Your task to perform on an android device: Empty the shopping cart on ebay.com. Search for "bose soundlink" on ebay.com, select the first entry, add it to the cart, then select checkout. Image 0: 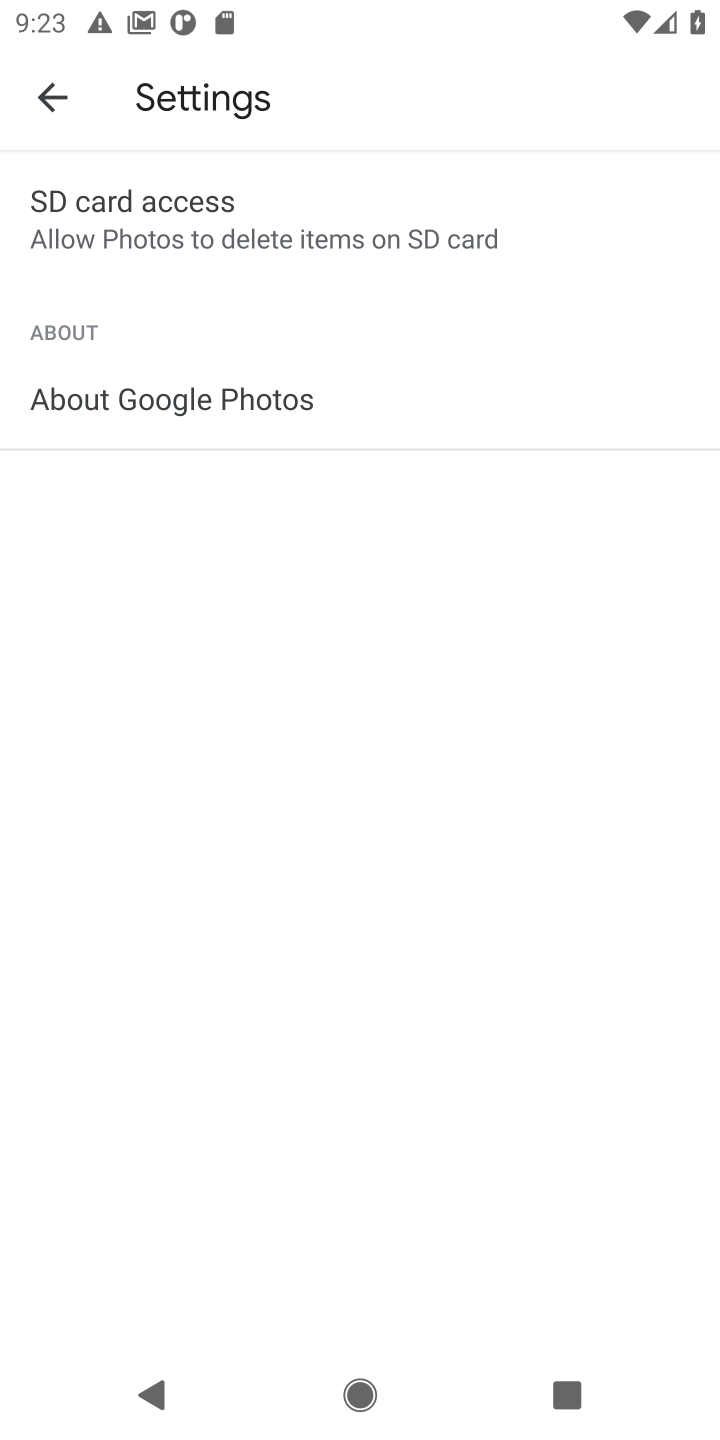
Step 0: press home button
Your task to perform on an android device: Empty the shopping cart on ebay.com. Search for "bose soundlink" on ebay.com, select the first entry, add it to the cart, then select checkout. Image 1: 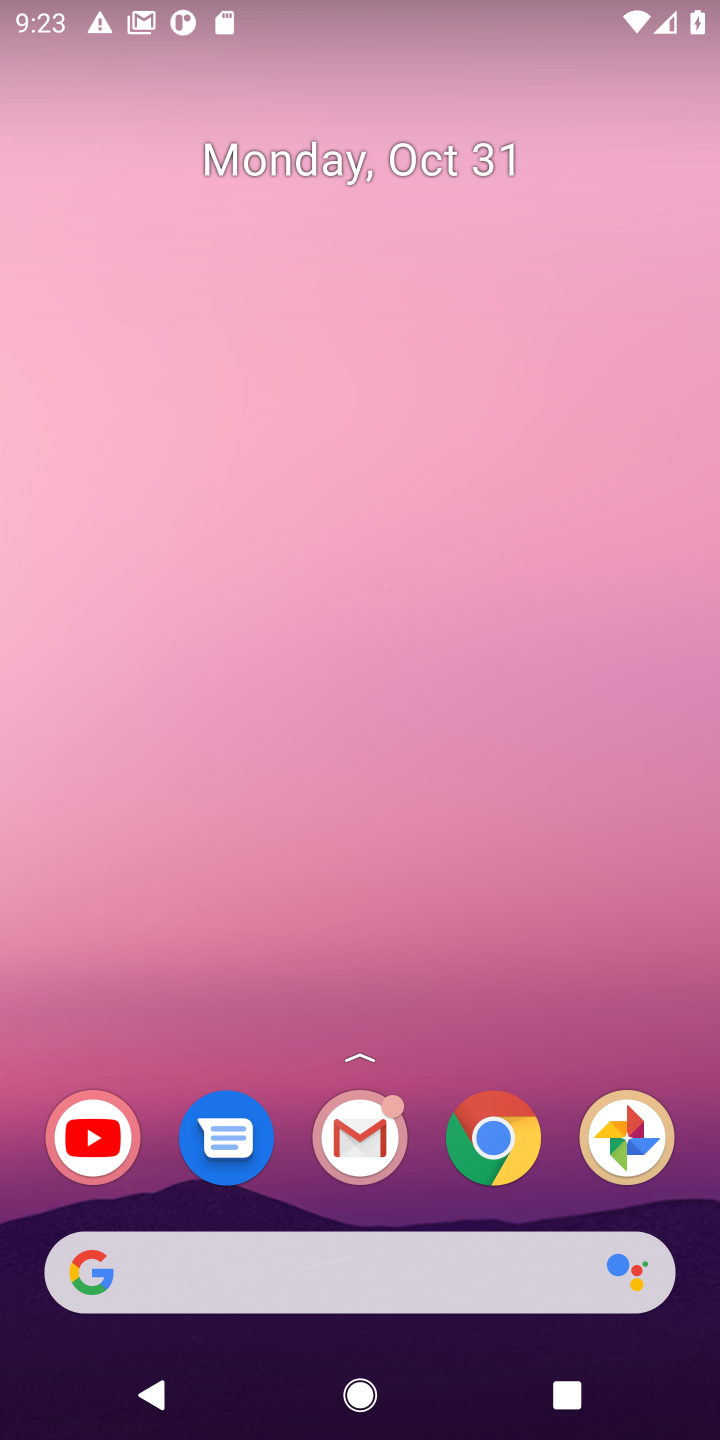
Step 1: drag from (480, 1359) to (626, 219)
Your task to perform on an android device: Empty the shopping cart on ebay.com. Search for "bose soundlink" on ebay.com, select the first entry, add it to the cart, then select checkout. Image 2: 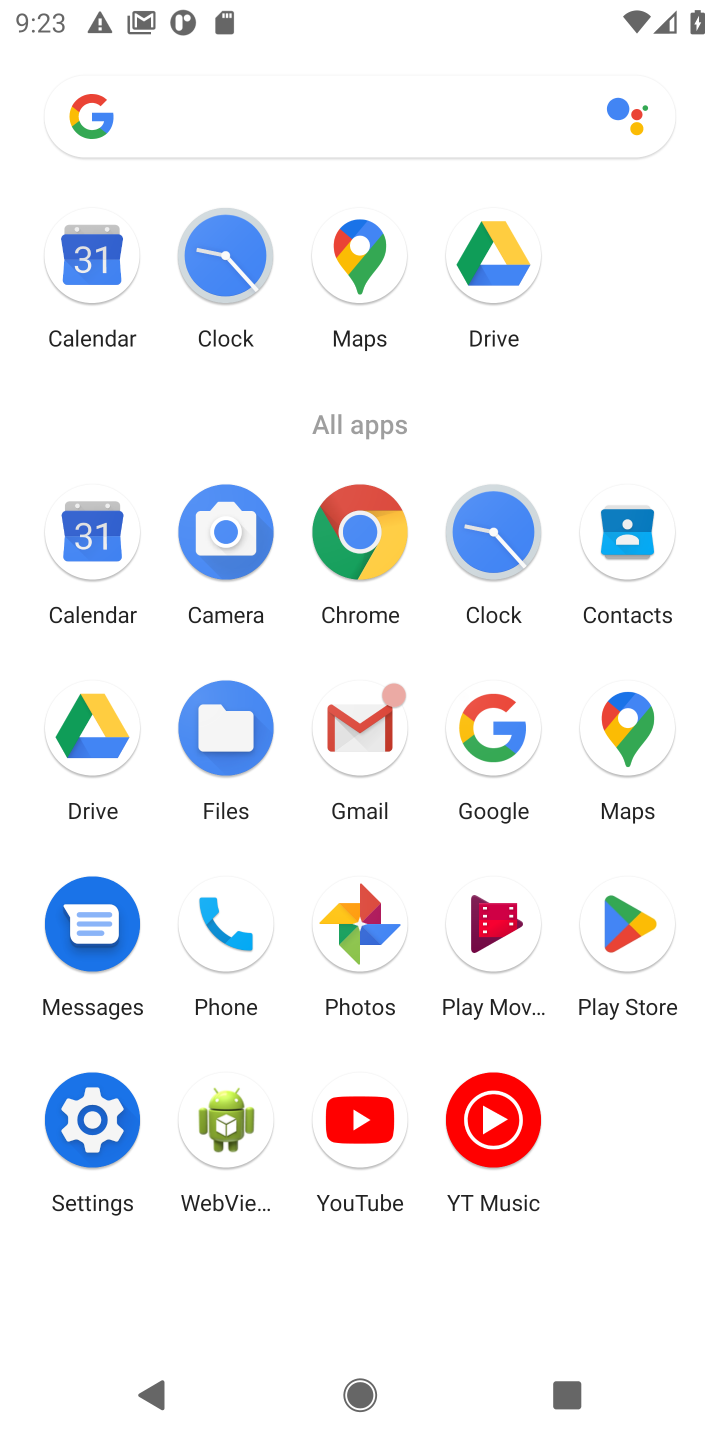
Step 2: click (370, 513)
Your task to perform on an android device: Empty the shopping cart on ebay.com. Search for "bose soundlink" on ebay.com, select the first entry, add it to the cart, then select checkout. Image 3: 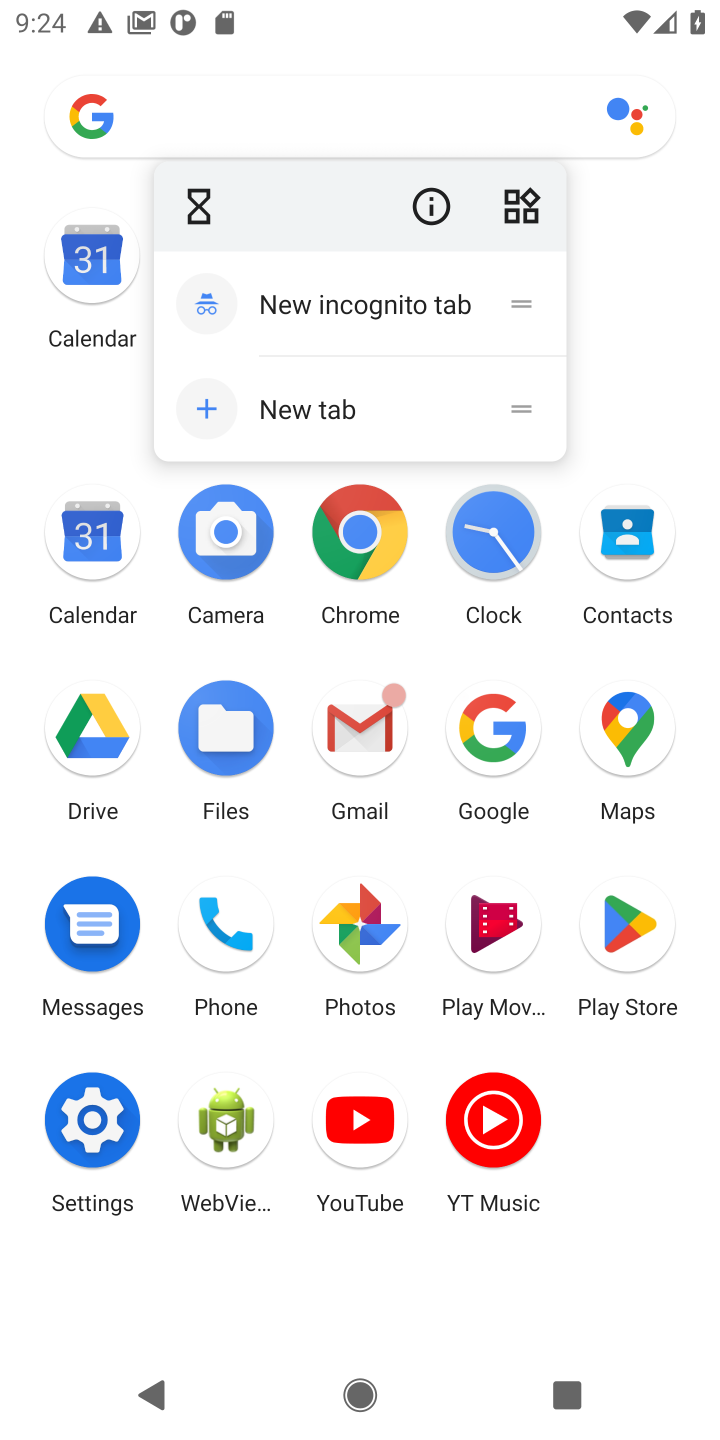
Step 3: click (648, 327)
Your task to perform on an android device: Empty the shopping cart on ebay.com. Search for "bose soundlink" on ebay.com, select the first entry, add it to the cart, then select checkout. Image 4: 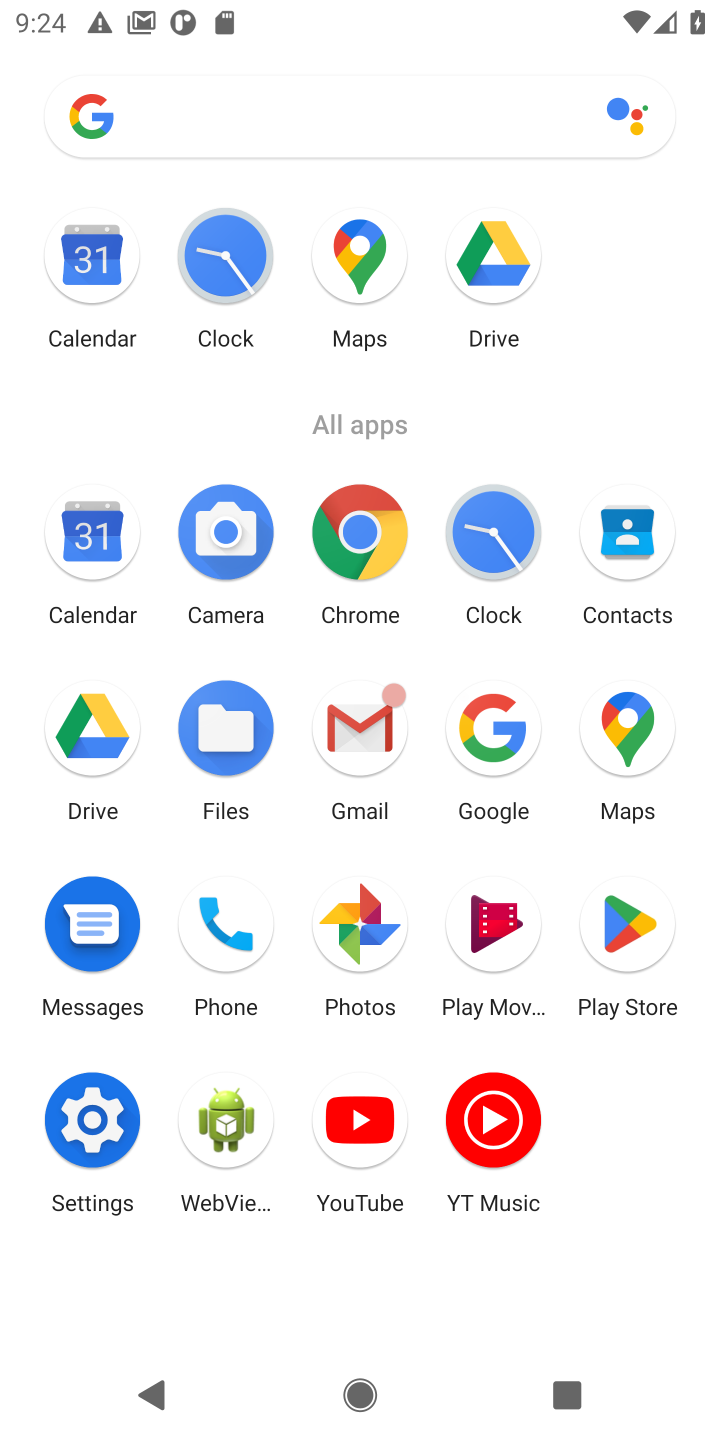
Step 4: click (361, 515)
Your task to perform on an android device: Empty the shopping cart on ebay.com. Search for "bose soundlink" on ebay.com, select the first entry, add it to the cart, then select checkout. Image 5: 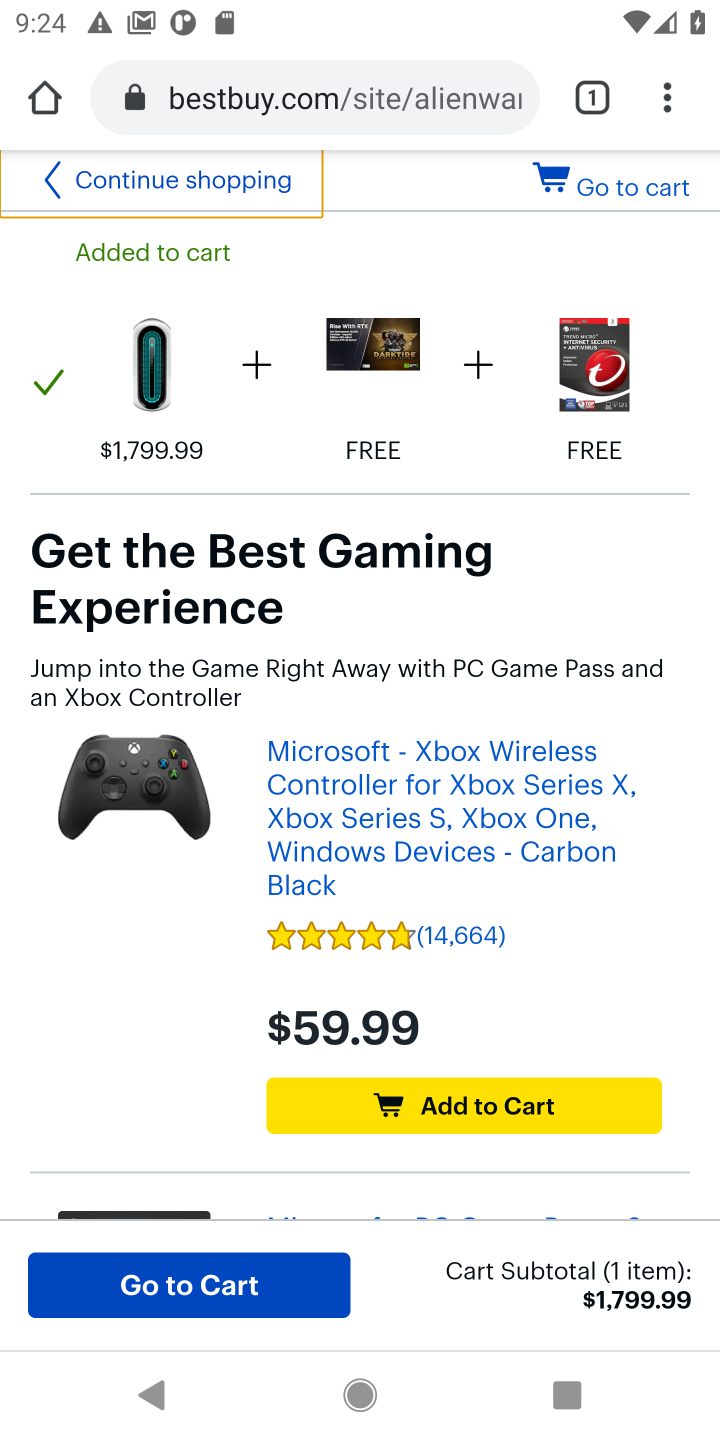
Step 5: drag from (222, 895) to (163, 921)
Your task to perform on an android device: Empty the shopping cart on ebay.com. Search for "bose soundlink" on ebay.com, select the first entry, add it to the cart, then select checkout. Image 6: 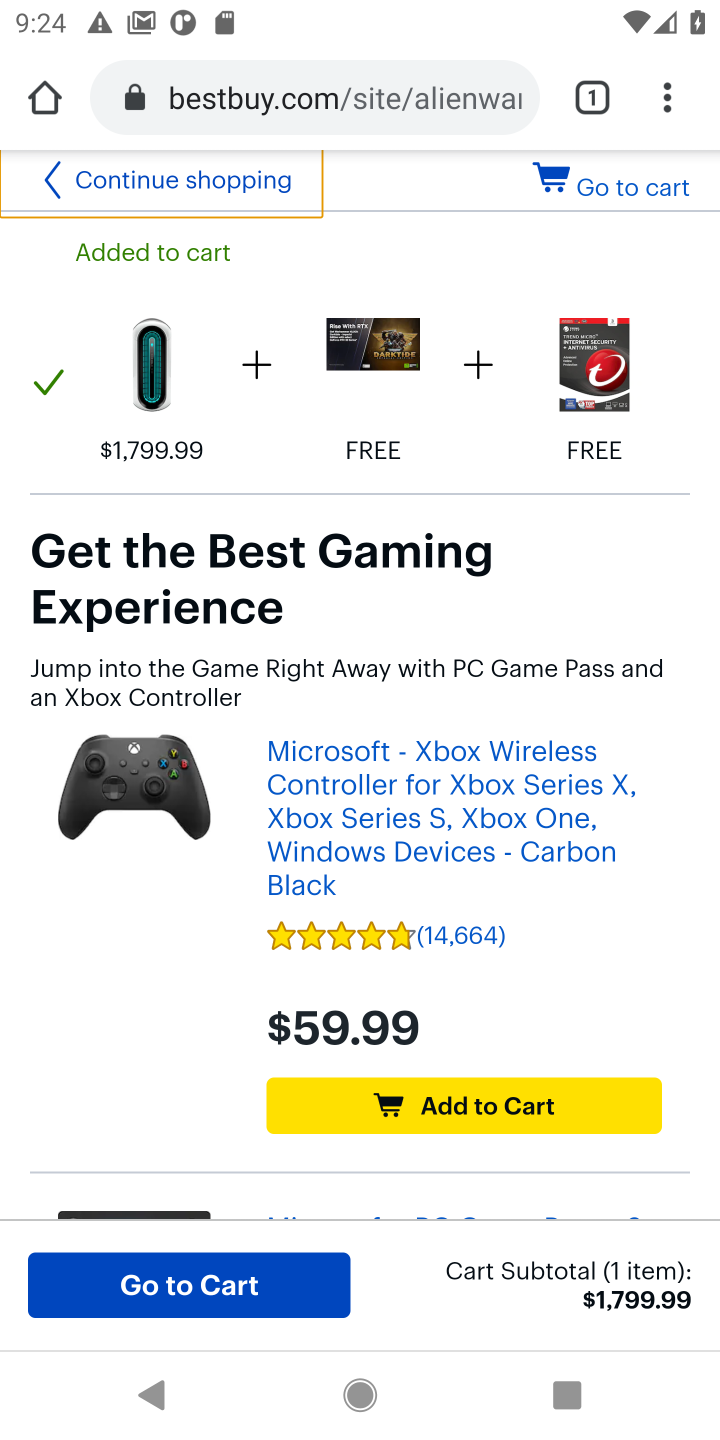
Step 6: drag from (256, 630) to (214, 943)
Your task to perform on an android device: Empty the shopping cart on ebay.com. Search for "bose soundlink" on ebay.com, select the first entry, add it to the cart, then select checkout. Image 7: 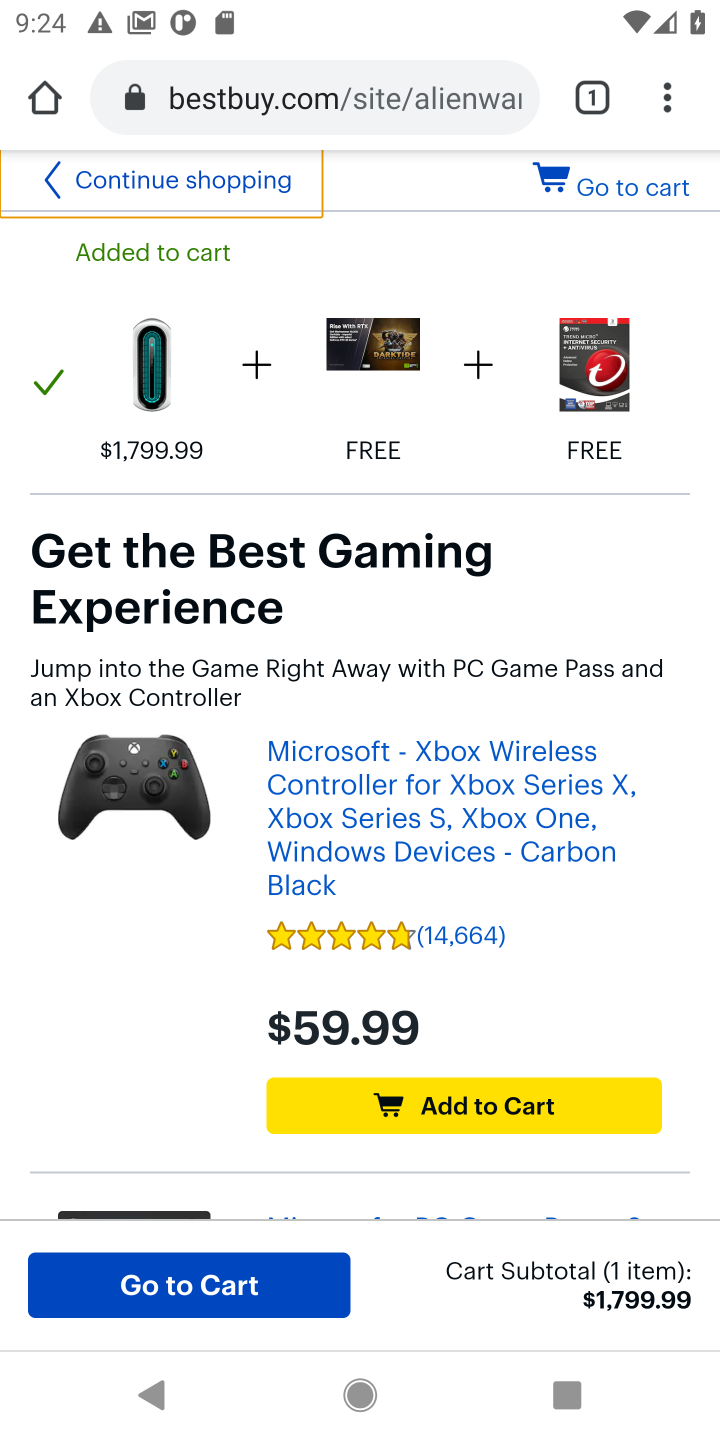
Step 7: click (177, 827)
Your task to perform on an android device: Empty the shopping cart on ebay.com. Search for "bose soundlink" on ebay.com, select the first entry, add it to the cart, then select checkout. Image 8: 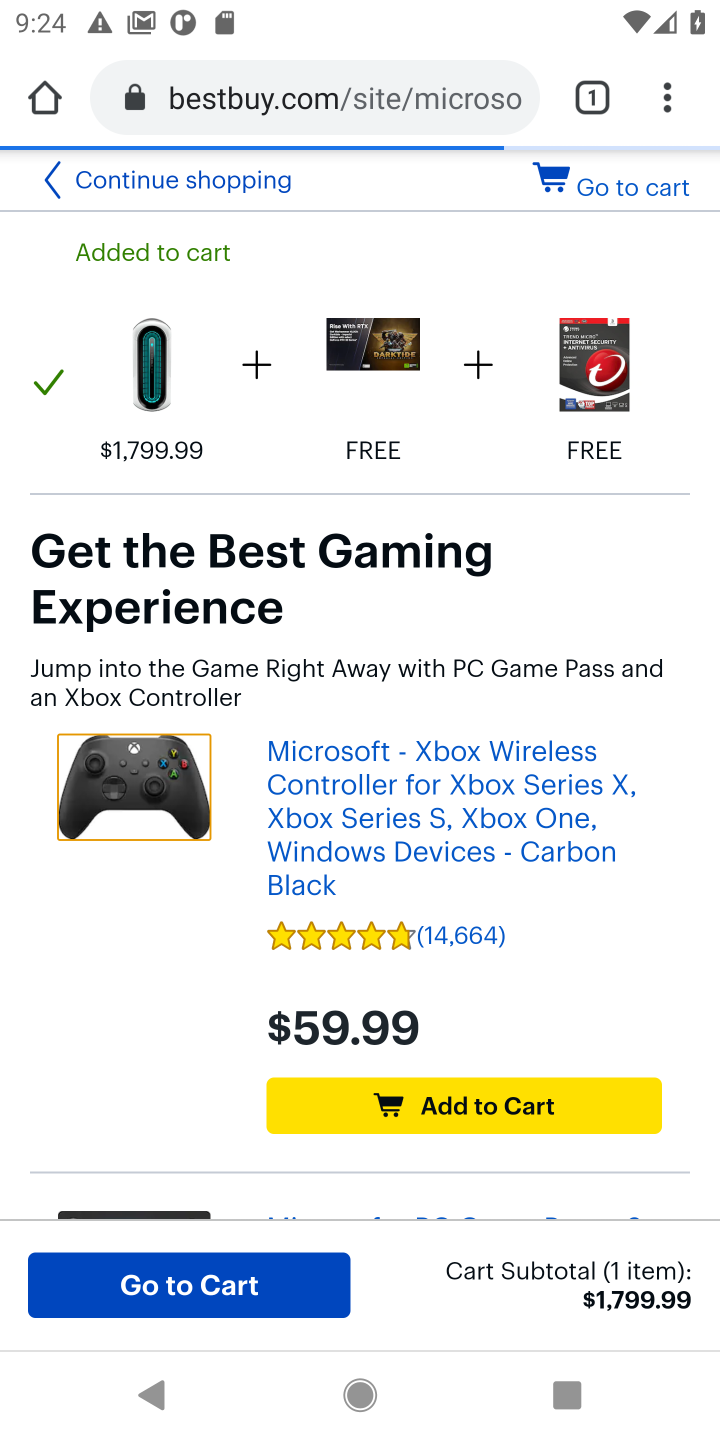
Step 8: click (212, 842)
Your task to perform on an android device: Empty the shopping cart on ebay.com. Search for "bose soundlink" on ebay.com, select the first entry, add it to the cart, then select checkout. Image 9: 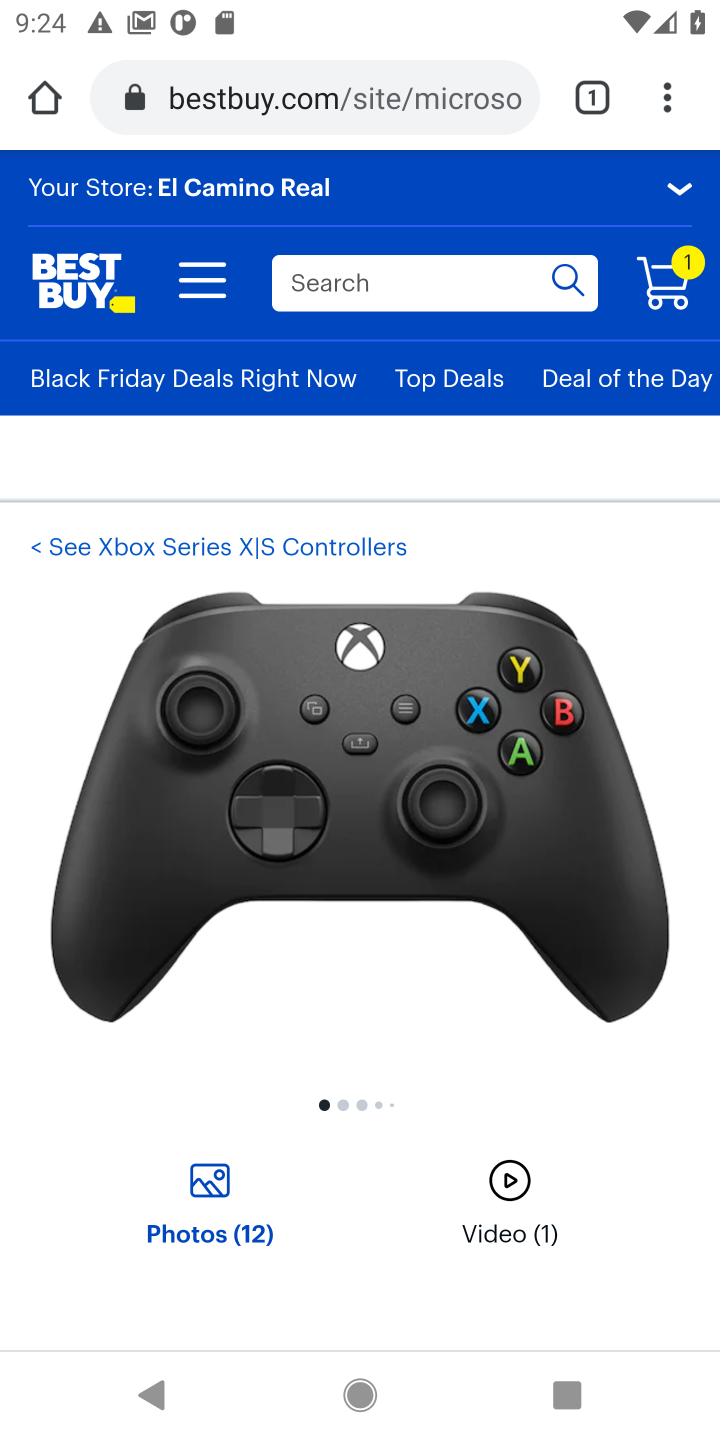
Step 9: drag from (447, 975) to (451, 407)
Your task to perform on an android device: Empty the shopping cart on ebay.com. Search for "bose soundlink" on ebay.com, select the first entry, add it to the cart, then select checkout. Image 10: 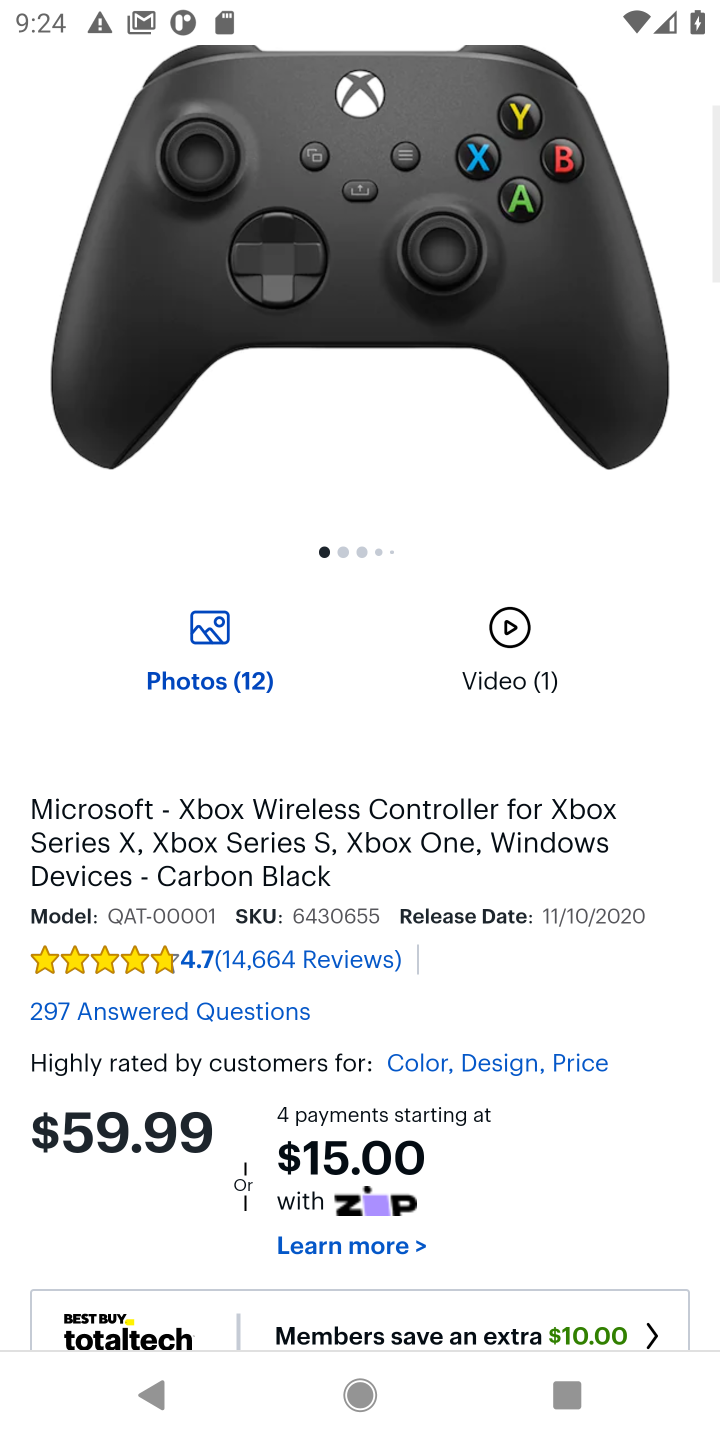
Step 10: drag from (352, 1099) to (438, 429)
Your task to perform on an android device: Empty the shopping cart on ebay.com. Search for "bose soundlink" on ebay.com, select the first entry, add it to the cart, then select checkout. Image 11: 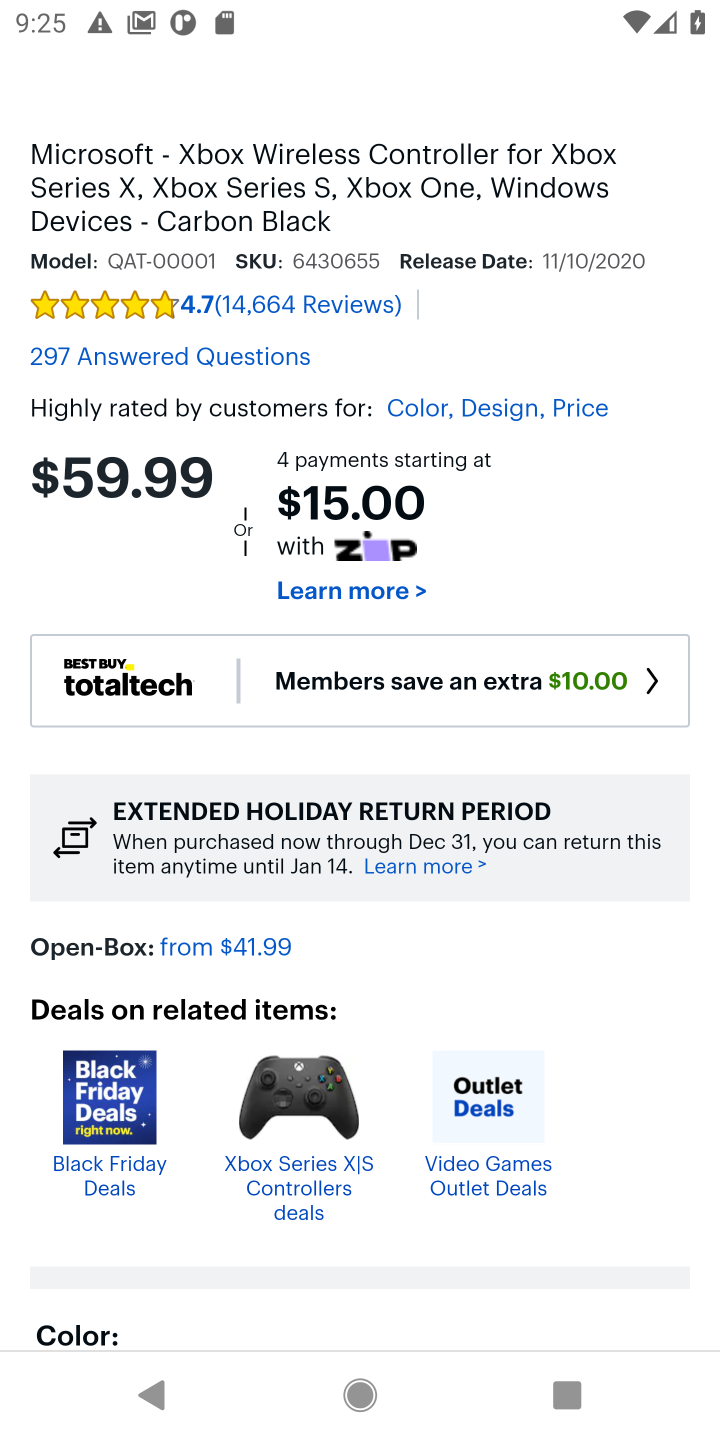
Step 11: drag from (453, 1059) to (549, 156)
Your task to perform on an android device: Empty the shopping cart on ebay.com. Search for "bose soundlink" on ebay.com, select the first entry, add it to the cart, then select checkout. Image 12: 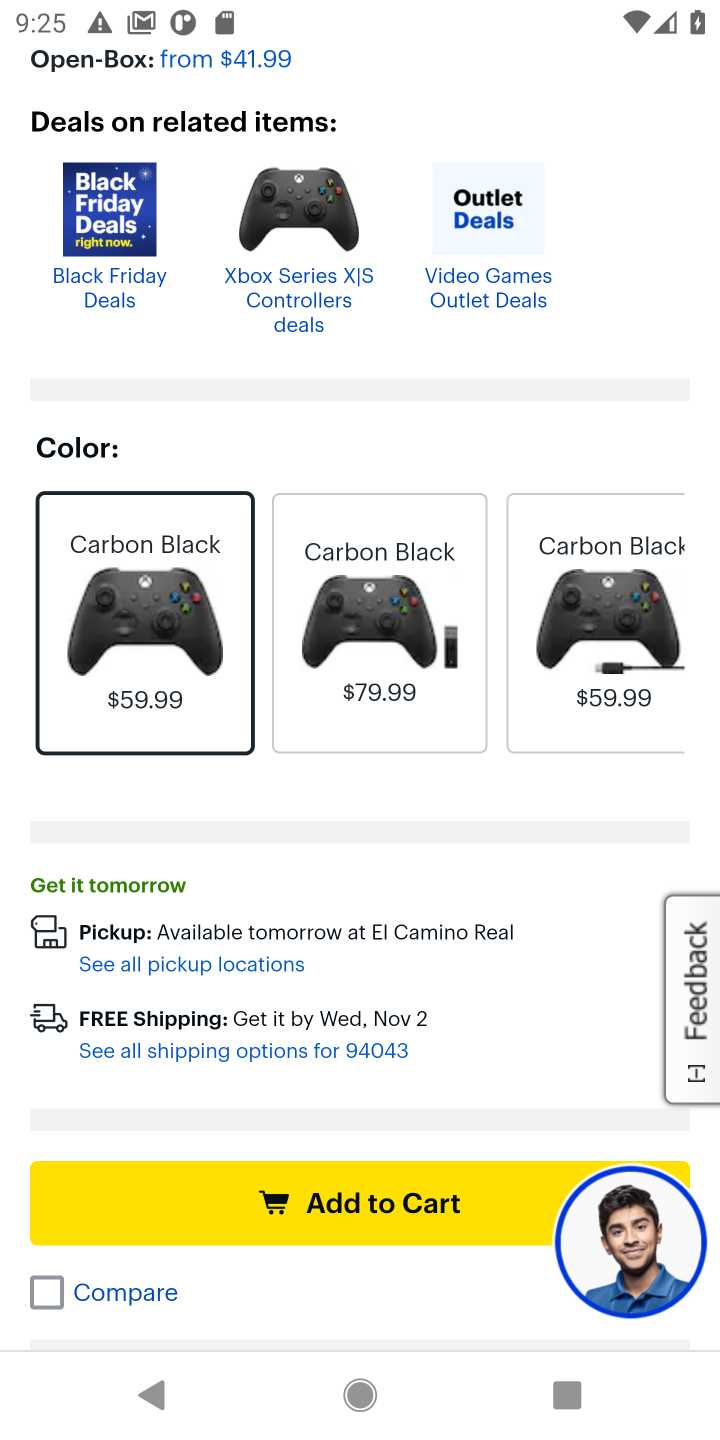
Step 12: click (360, 1192)
Your task to perform on an android device: Empty the shopping cart on ebay.com. Search for "bose soundlink" on ebay.com, select the first entry, add it to the cart, then select checkout. Image 13: 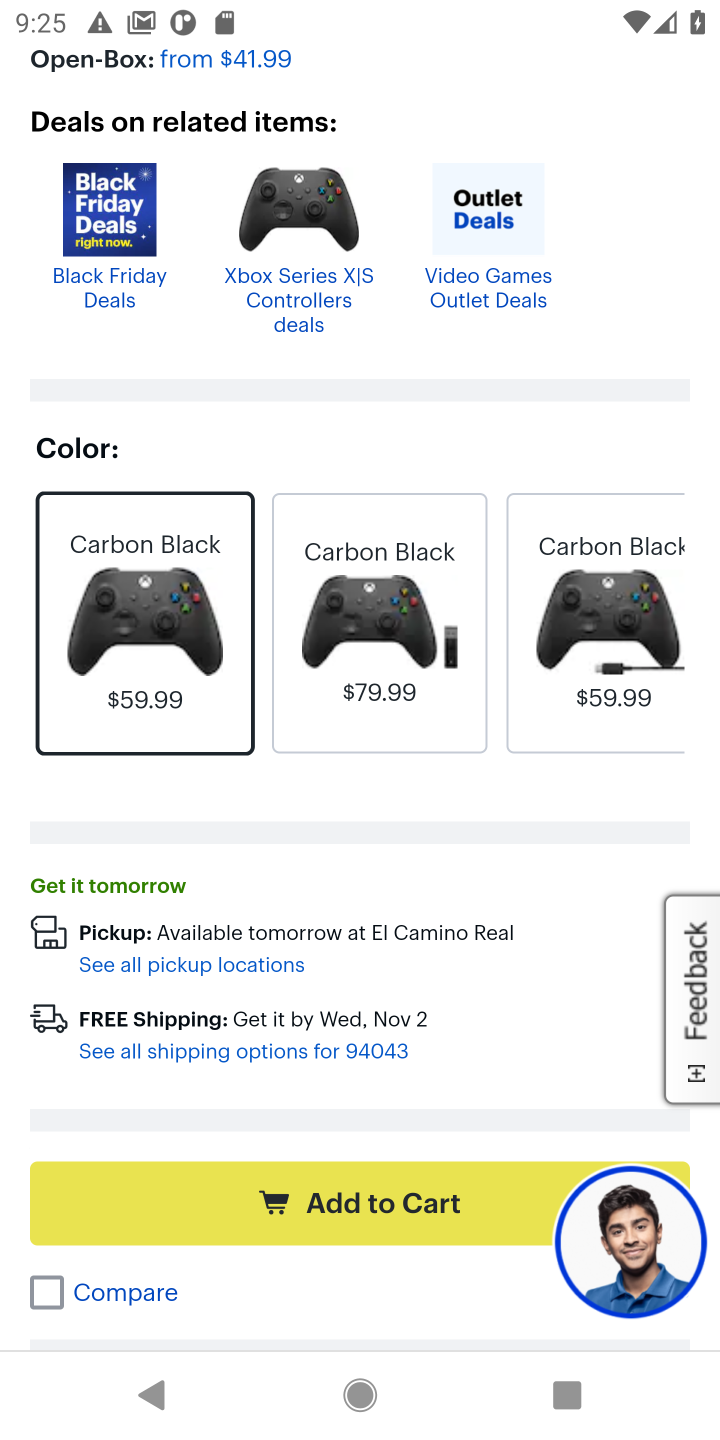
Step 13: task complete